Your task to perform on an android device: install app "Booking.com: Hotels and more" Image 0: 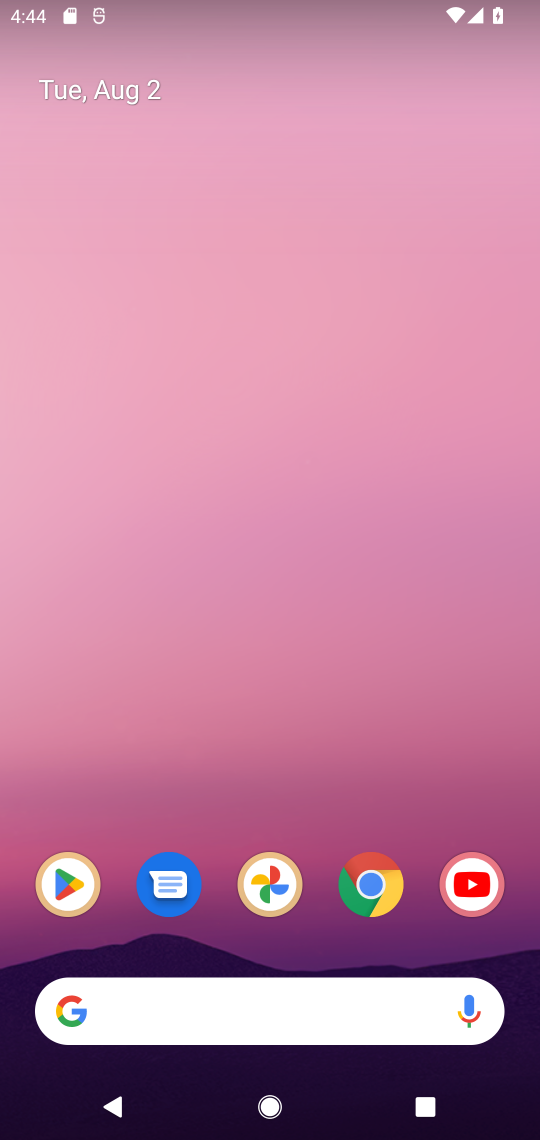
Step 0: press home button
Your task to perform on an android device: install app "Booking.com: Hotels and more" Image 1: 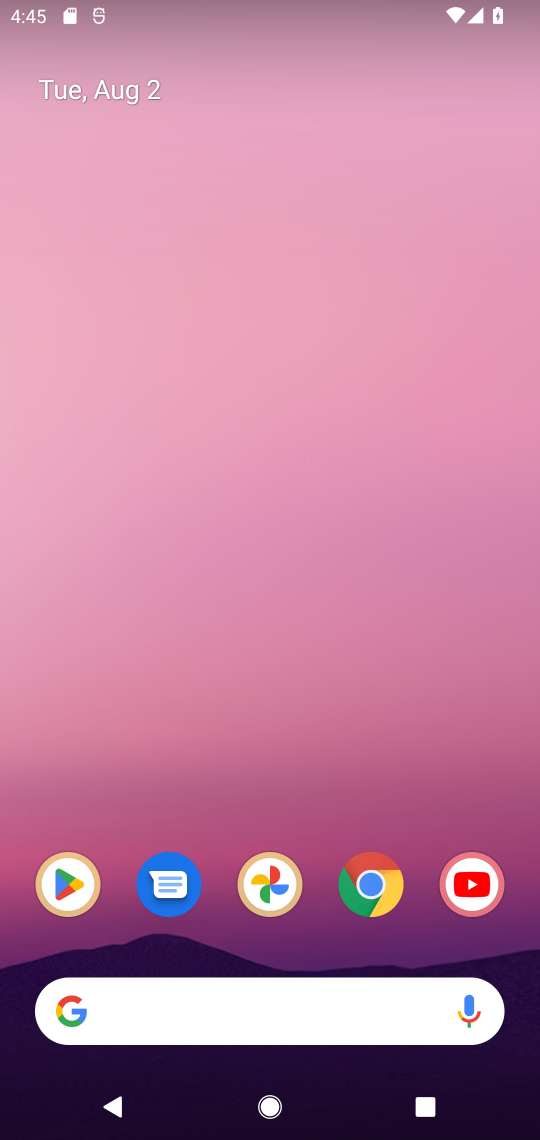
Step 1: click (71, 872)
Your task to perform on an android device: install app "Booking.com: Hotels and more" Image 2: 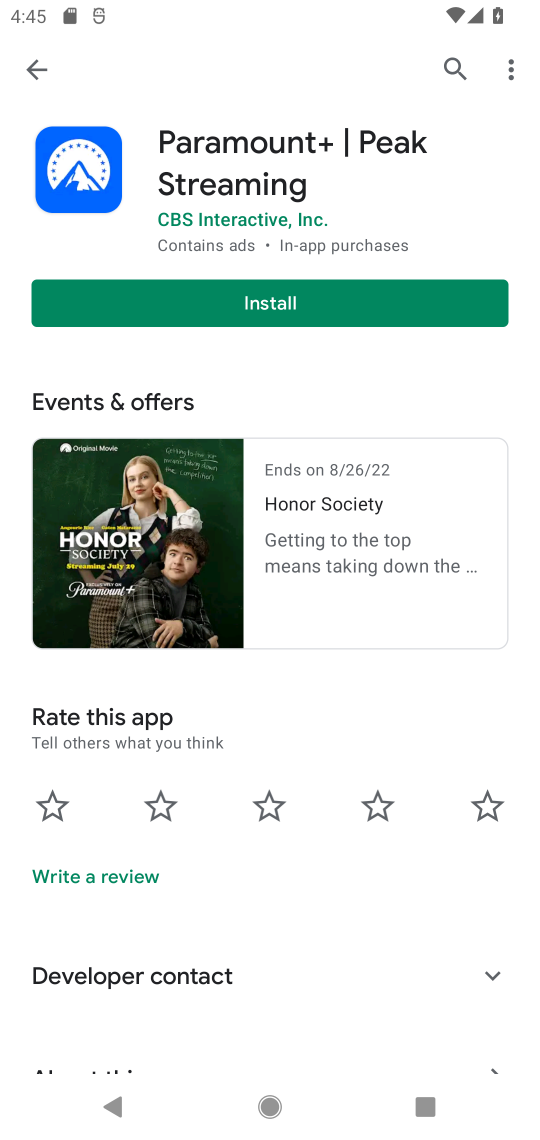
Step 2: click (446, 67)
Your task to perform on an android device: install app "Booking.com: Hotels and more" Image 3: 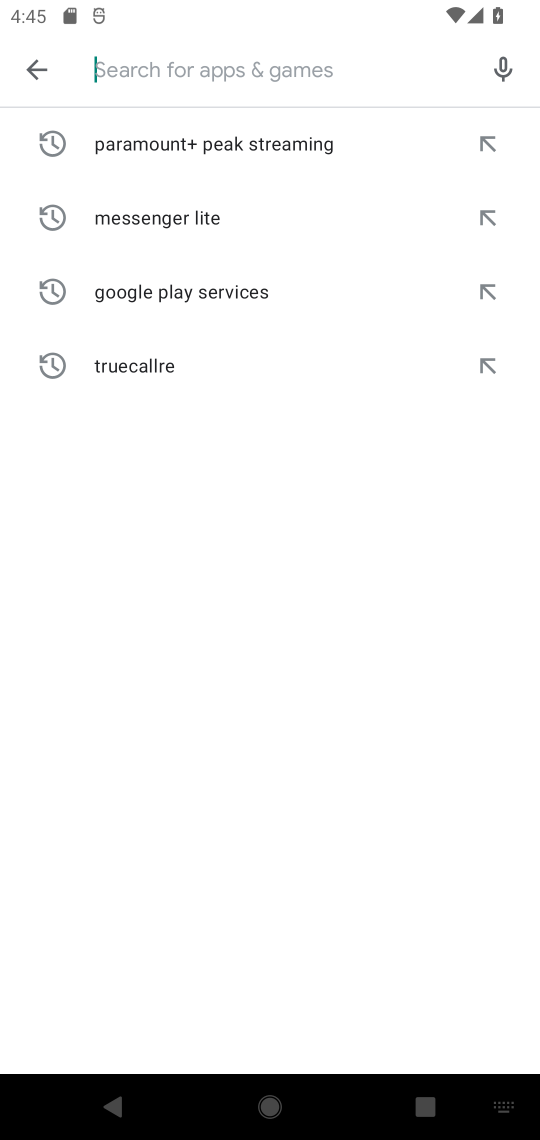
Step 3: type "Booking.com: Hotels and more"
Your task to perform on an android device: install app "Booking.com: Hotels and more" Image 4: 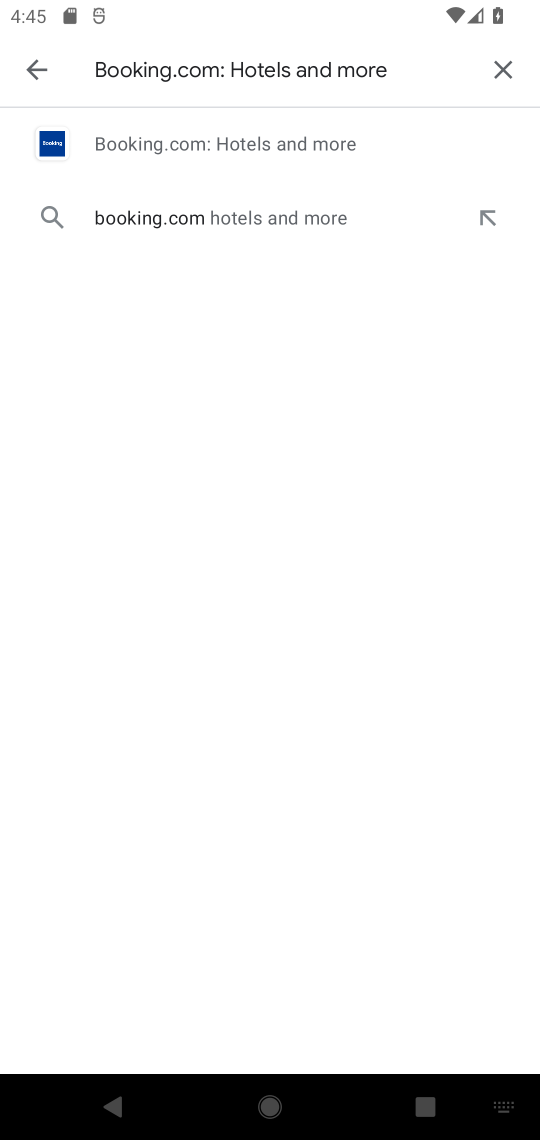
Step 4: click (108, 145)
Your task to perform on an android device: install app "Booking.com: Hotels and more" Image 5: 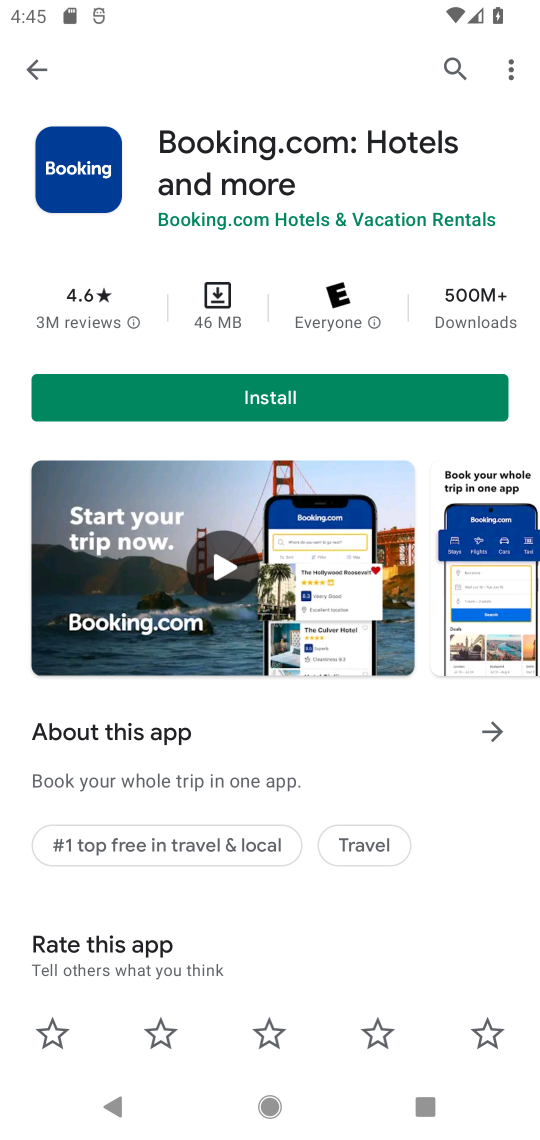
Step 5: click (210, 396)
Your task to perform on an android device: install app "Booking.com: Hotels and more" Image 6: 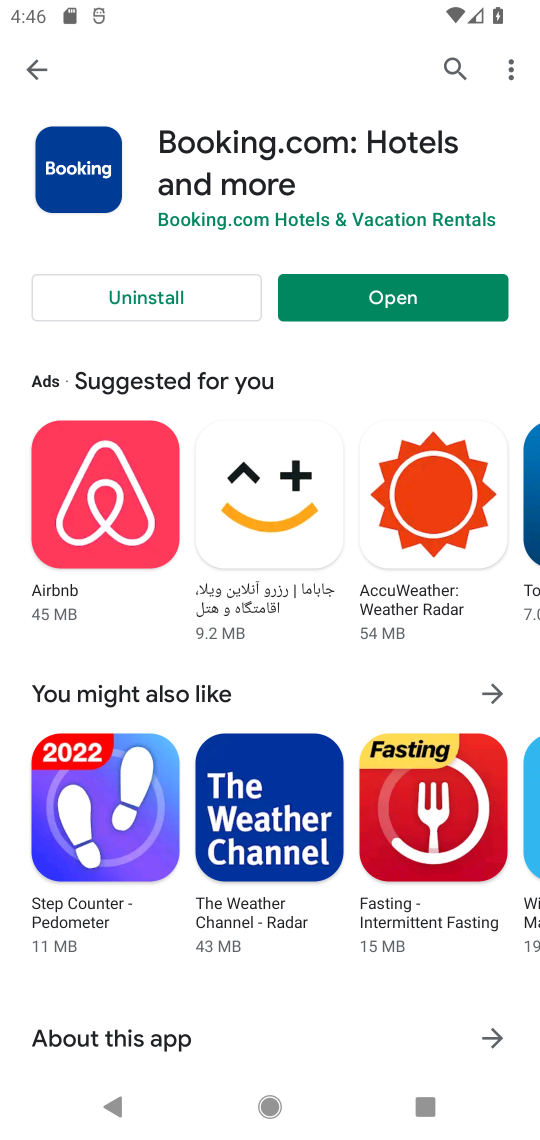
Step 6: task complete